Your task to perform on an android device: search for starred emails in the gmail app Image 0: 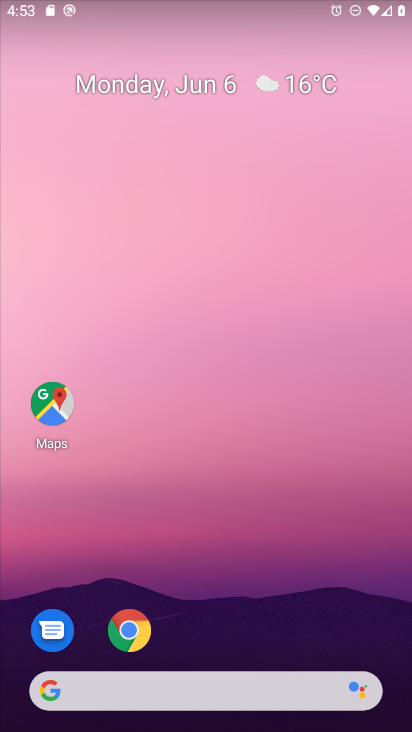
Step 0: drag from (300, 458) to (20, 218)
Your task to perform on an android device: search for starred emails in the gmail app Image 1: 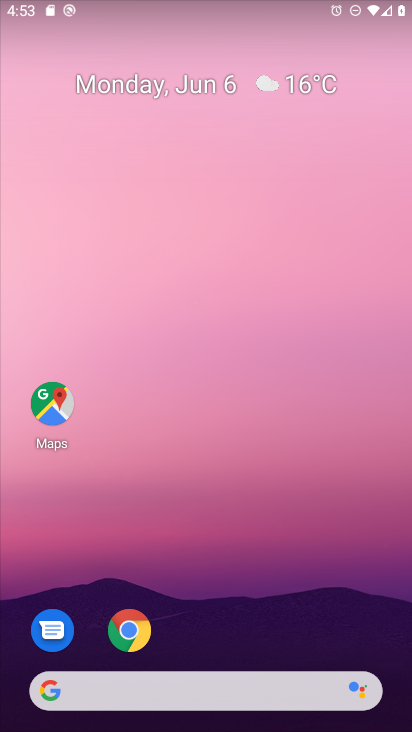
Step 1: drag from (242, 310) to (128, 23)
Your task to perform on an android device: search for starred emails in the gmail app Image 2: 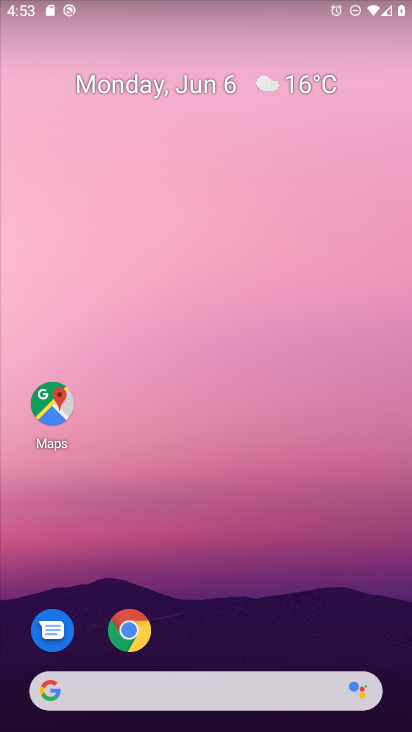
Step 2: drag from (254, 476) to (216, 0)
Your task to perform on an android device: search for starred emails in the gmail app Image 3: 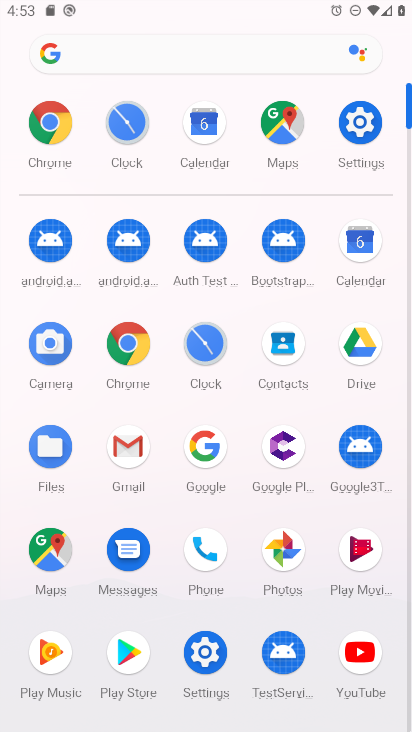
Step 3: click (131, 453)
Your task to perform on an android device: search for starred emails in the gmail app Image 4: 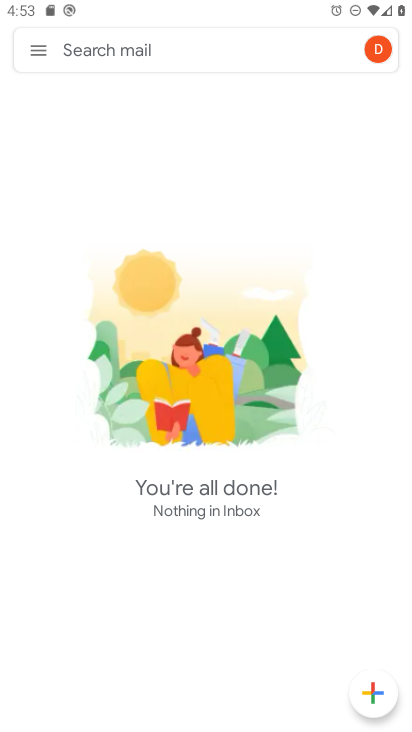
Step 4: click (38, 52)
Your task to perform on an android device: search for starred emails in the gmail app Image 5: 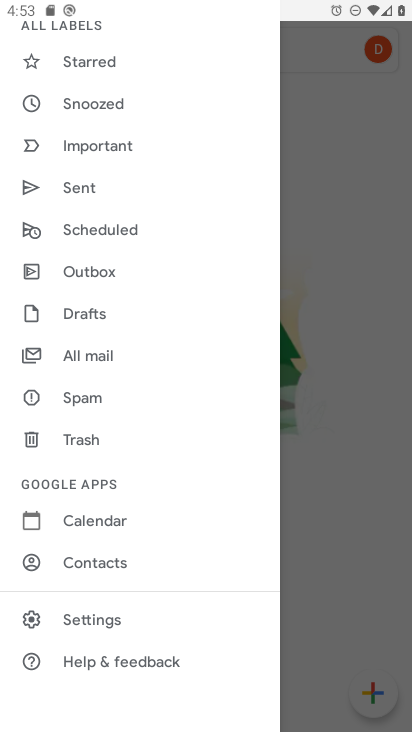
Step 5: click (132, 65)
Your task to perform on an android device: search for starred emails in the gmail app Image 6: 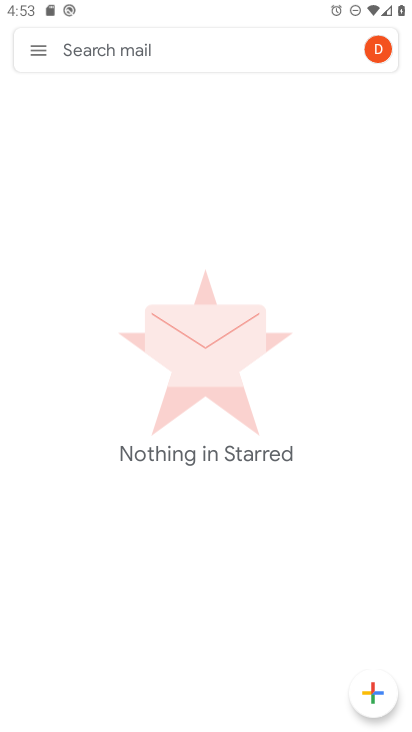
Step 6: task complete